Your task to perform on an android device: see sites visited before in the chrome app Image 0: 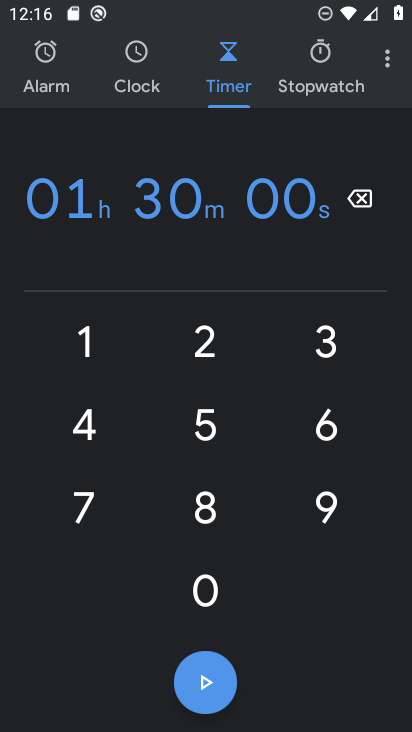
Step 0: press home button
Your task to perform on an android device: see sites visited before in the chrome app Image 1: 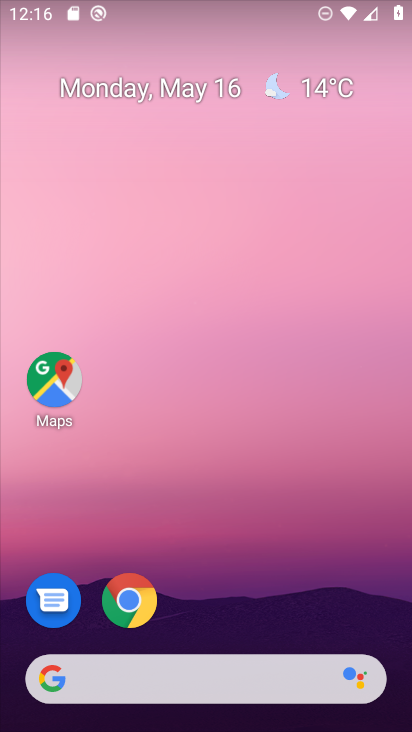
Step 1: click (127, 603)
Your task to perform on an android device: see sites visited before in the chrome app Image 2: 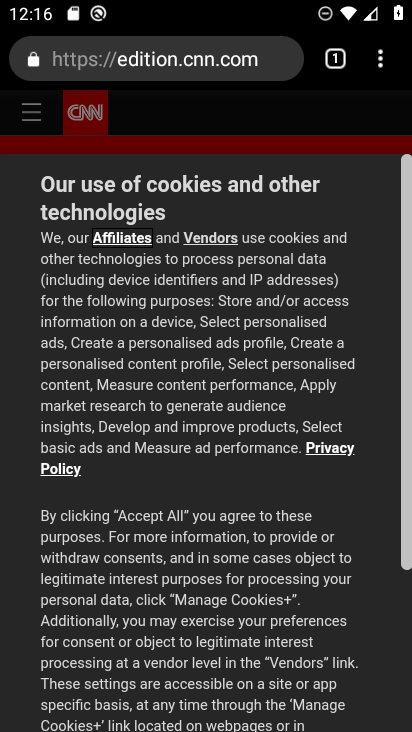
Step 2: click (381, 63)
Your task to perform on an android device: see sites visited before in the chrome app Image 3: 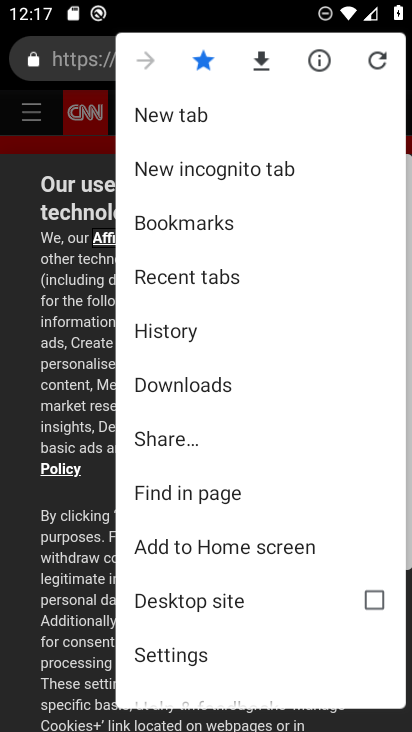
Step 3: drag from (291, 586) to (311, 289)
Your task to perform on an android device: see sites visited before in the chrome app Image 4: 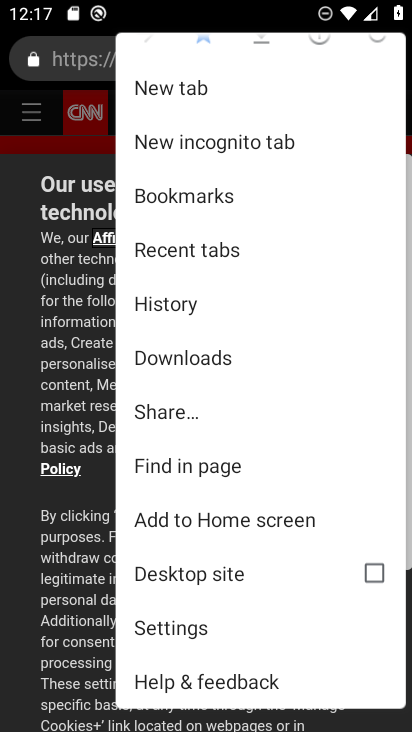
Step 4: click (168, 310)
Your task to perform on an android device: see sites visited before in the chrome app Image 5: 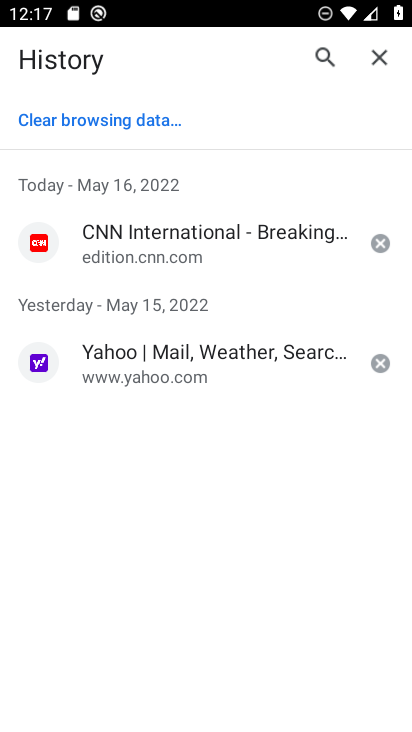
Step 5: task complete